Your task to perform on an android device: Go to Google Image 0: 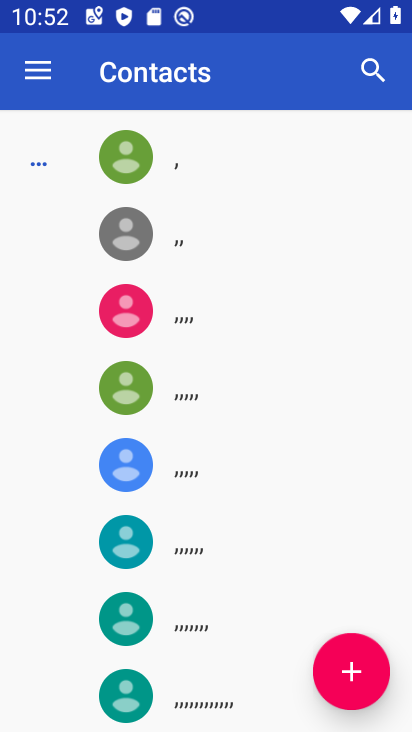
Step 0: press home button
Your task to perform on an android device: Go to Google Image 1: 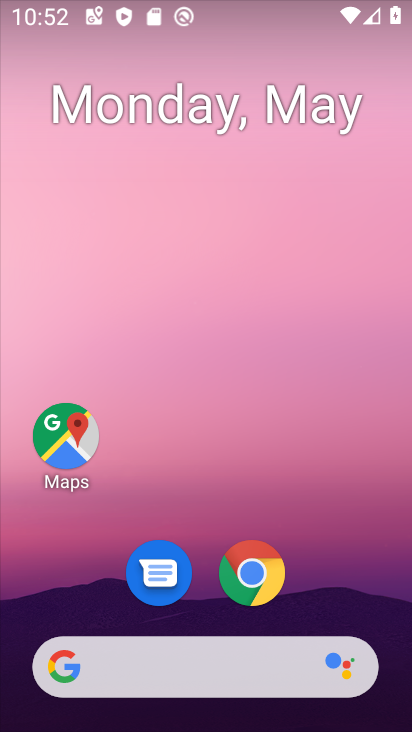
Step 1: drag from (346, 596) to (258, 16)
Your task to perform on an android device: Go to Google Image 2: 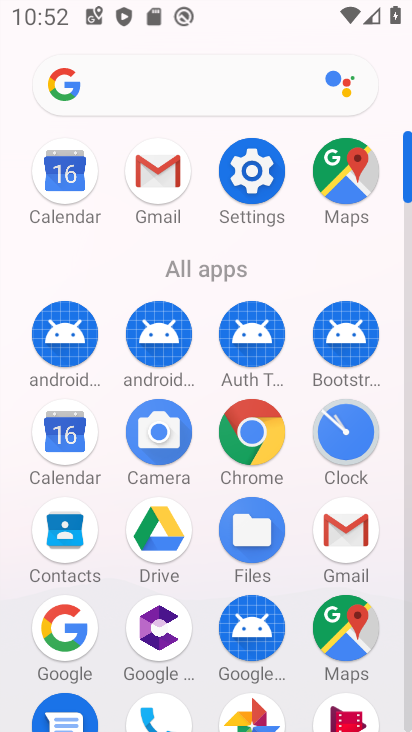
Step 2: click (69, 623)
Your task to perform on an android device: Go to Google Image 3: 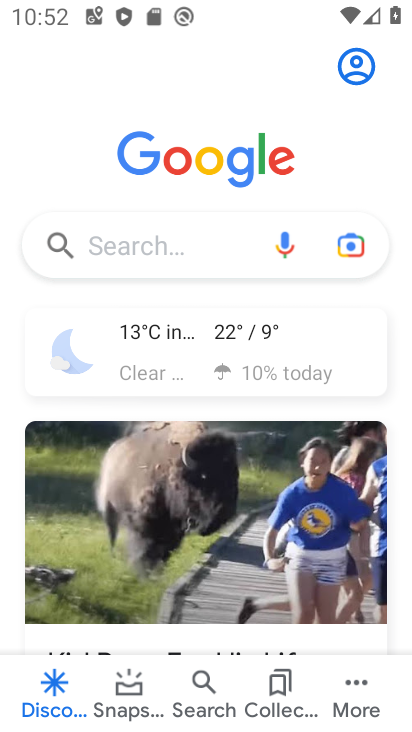
Step 3: task complete